Your task to perform on an android device: Clear all items from cart on walmart. Add logitech g pro to the cart on walmart, then select checkout. Image 0: 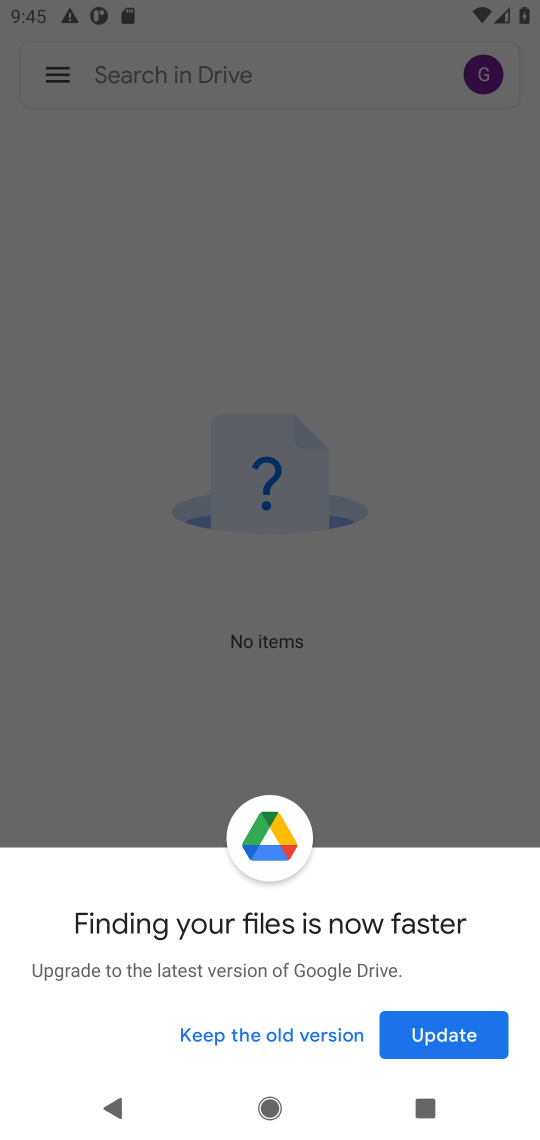
Step 0: press home button
Your task to perform on an android device: Clear all items from cart on walmart. Add logitech g pro to the cart on walmart, then select checkout. Image 1: 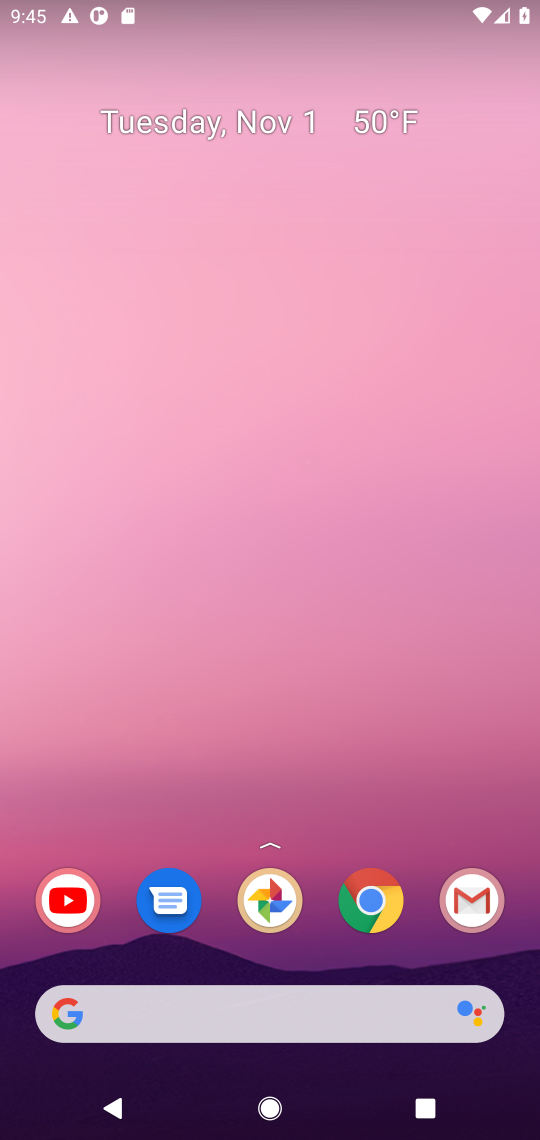
Step 1: click (364, 907)
Your task to perform on an android device: Clear all items from cart on walmart. Add logitech g pro to the cart on walmart, then select checkout. Image 2: 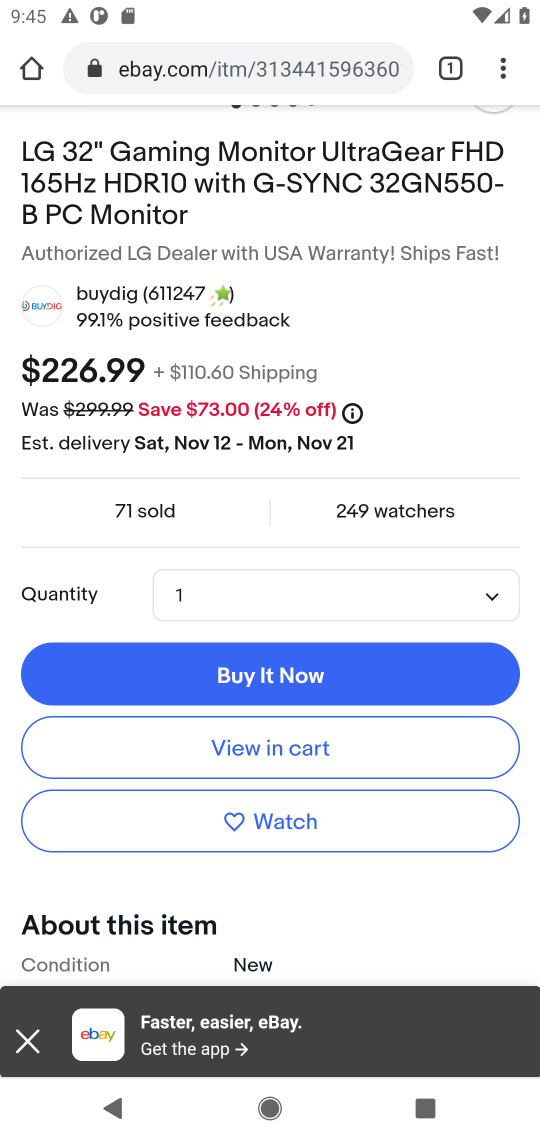
Step 2: click (196, 70)
Your task to perform on an android device: Clear all items from cart on walmart. Add logitech g pro to the cart on walmart, then select checkout. Image 3: 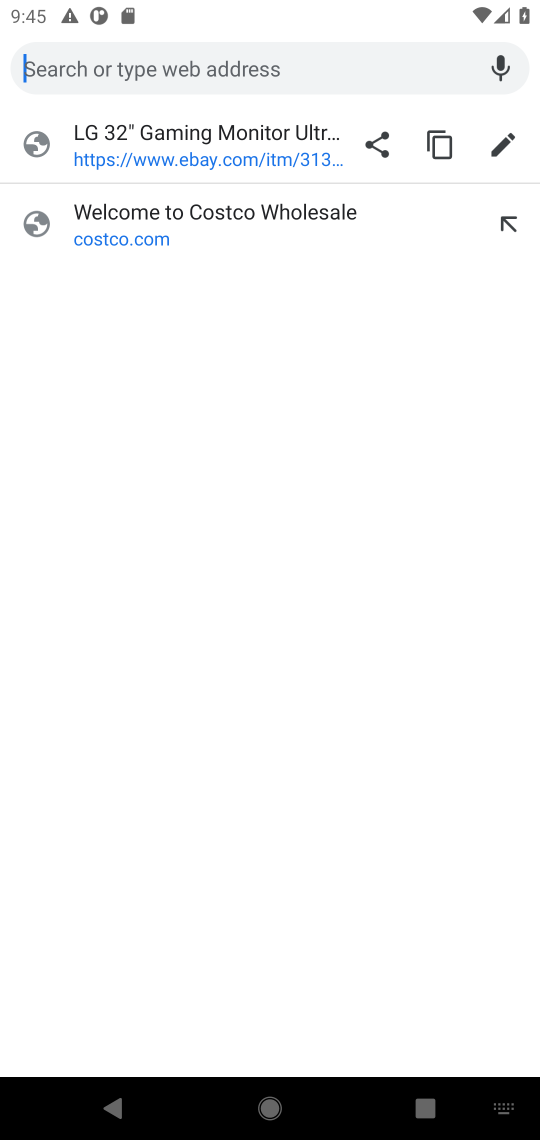
Step 3: type "walmart"
Your task to perform on an android device: Clear all items from cart on walmart. Add logitech g pro to the cart on walmart, then select checkout. Image 4: 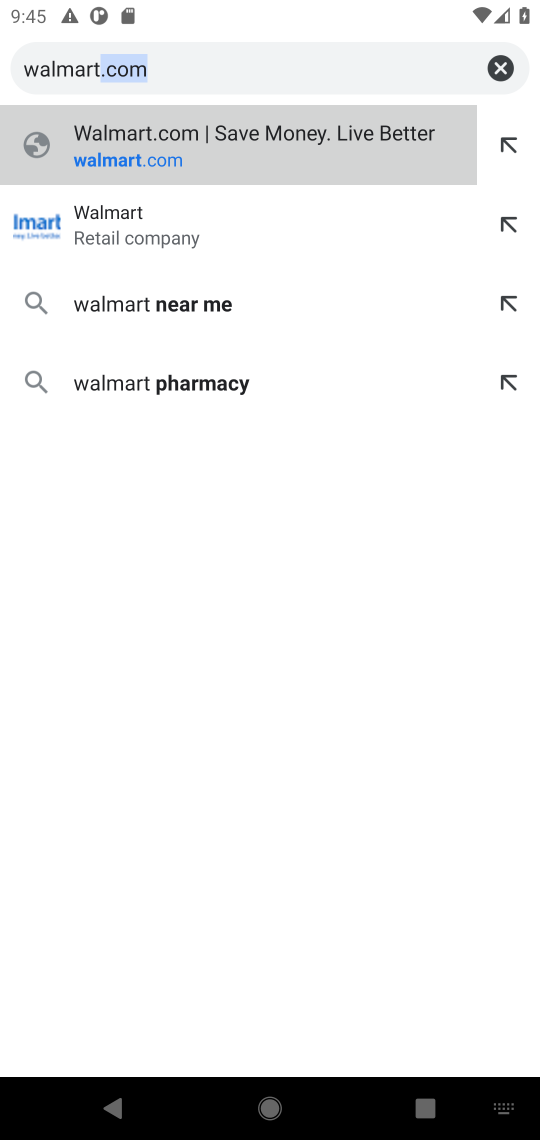
Step 4: click (190, 218)
Your task to perform on an android device: Clear all items from cart on walmart. Add logitech g pro to the cart on walmart, then select checkout. Image 5: 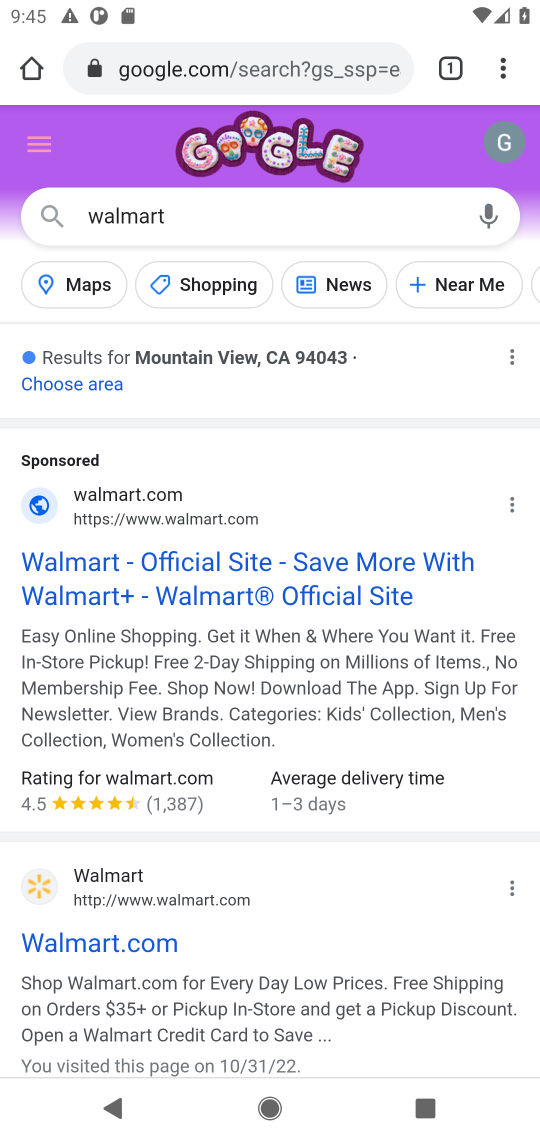
Step 5: click (105, 586)
Your task to perform on an android device: Clear all items from cart on walmart. Add logitech g pro to the cart on walmart, then select checkout. Image 6: 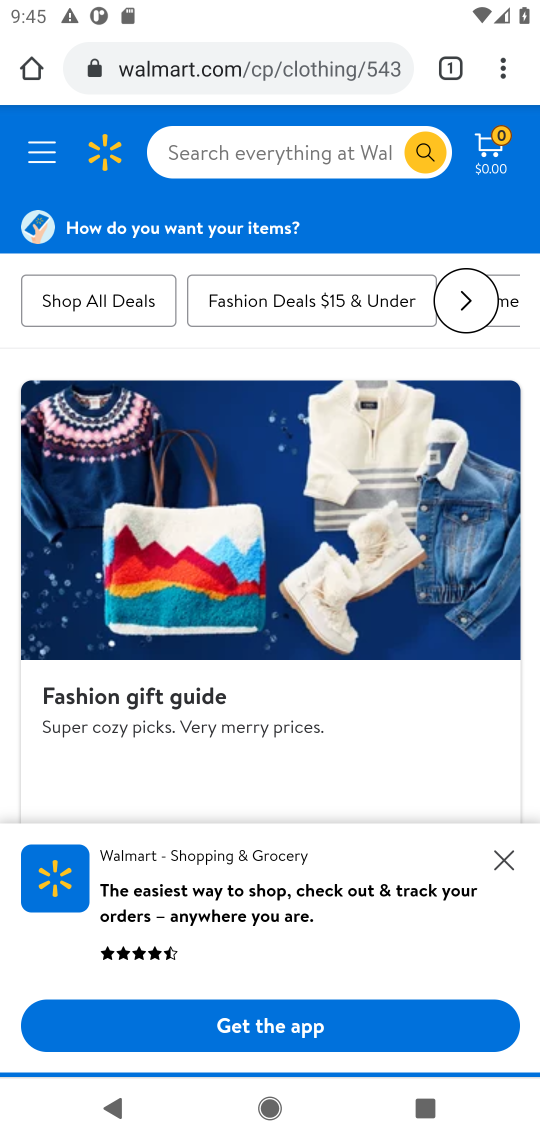
Step 6: click (105, 586)
Your task to perform on an android device: Clear all items from cart on walmart. Add logitech g pro to the cart on walmart, then select checkout. Image 7: 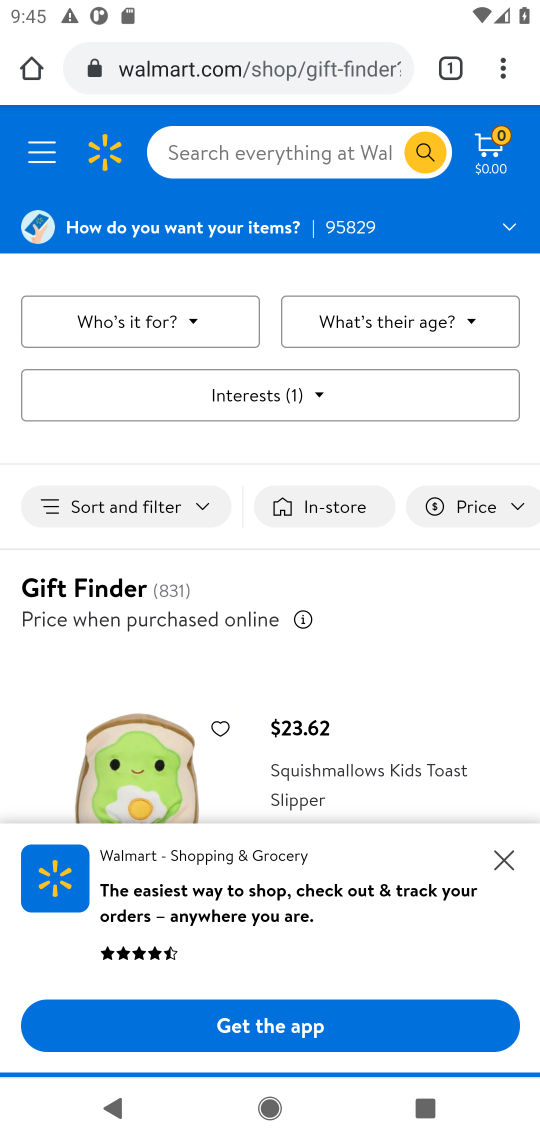
Step 7: click (485, 132)
Your task to perform on an android device: Clear all items from cart on walmart. Add logitech g pro to the cart on walmart, then select checkout. Image 8: 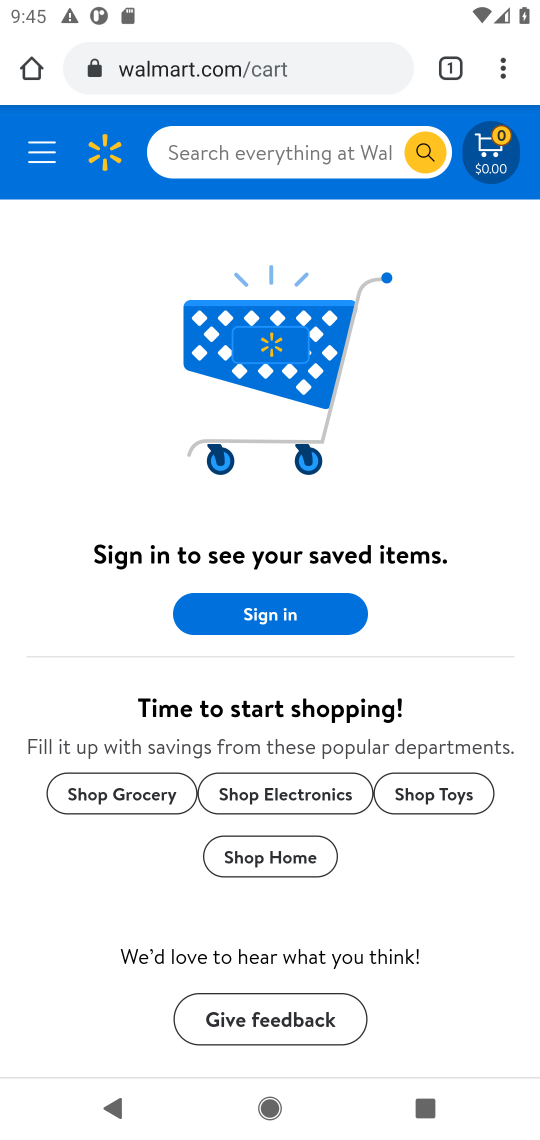
Step 8: click (299, 141)
Your task to perform on an android device: Clear all items from cart on walmart. Add logitech g pro to the cart on walmart, then select checkout. Image 9: 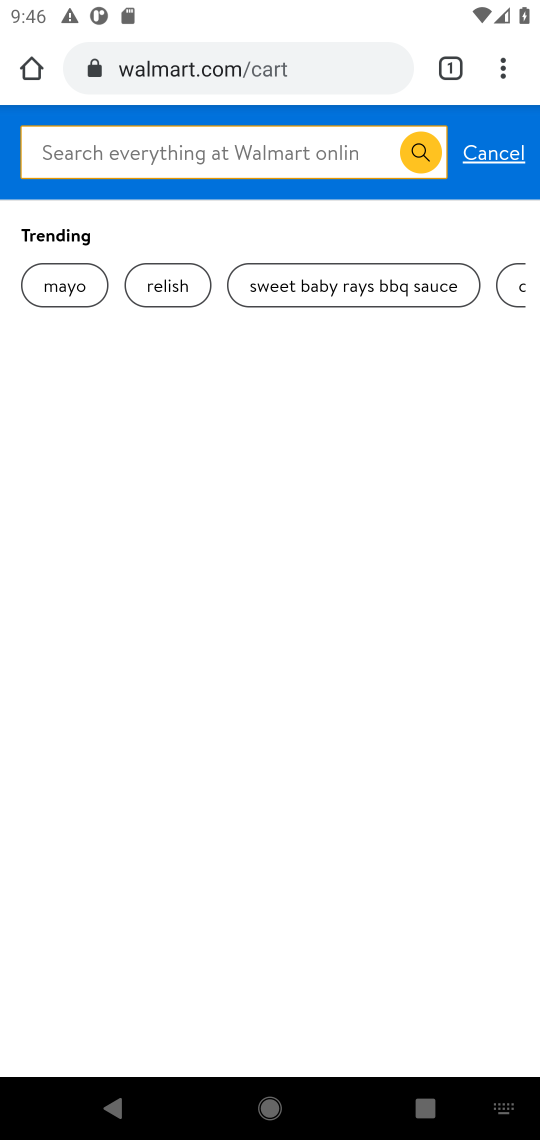
Step 9: type "logitech g pro"
Your task to perform on an android device: Clear all items from cart on walmart. Add logitech g pro to the cart on walmart, then select checkout. Image 10: 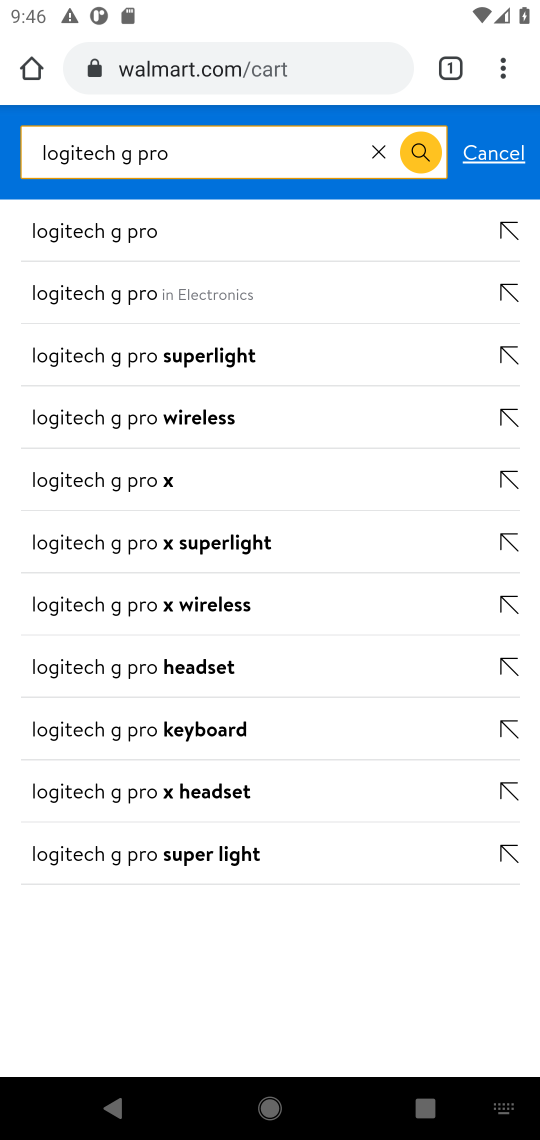
Step 10: click (288, 214)
Your task to perform on an android device: Clear all items from cart on walmart. Add logitech g pro to the cart on walmart, then select checkout. Image 11: 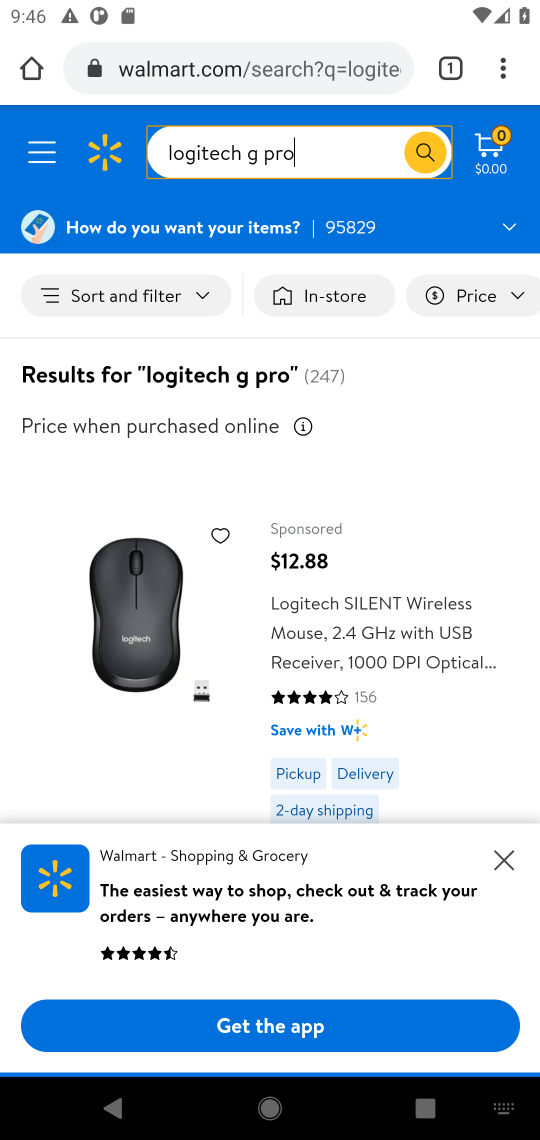
Step 11: click (502, 862)
Your task to perform on an android device: Clear all items from cart on walmart. Add logitech g pro to the cart on walmart, then select checkout. Image 12: 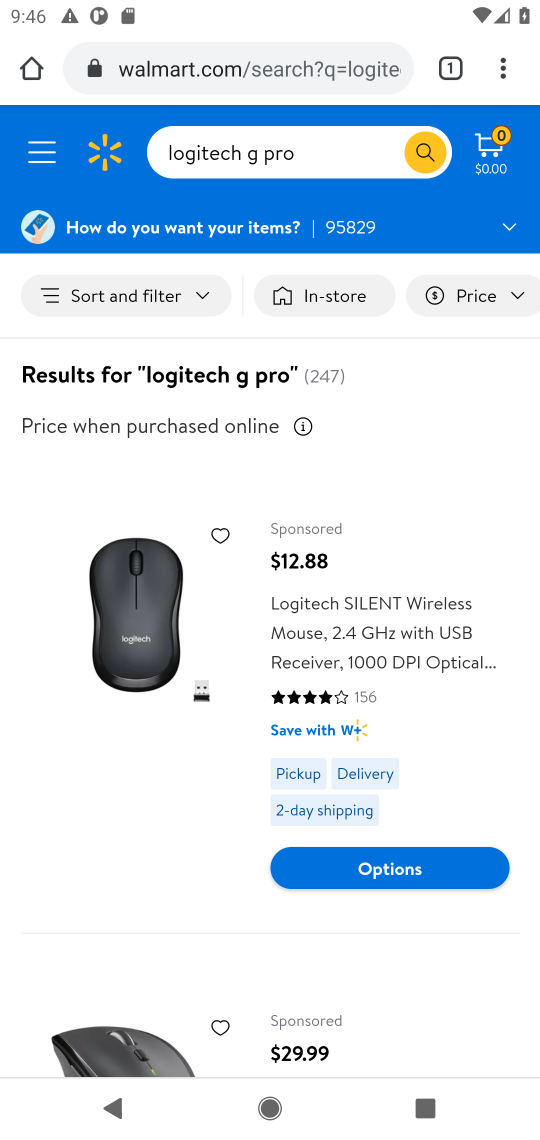
Step 12: drag from (452, 757) to (421, 230)
Your task to perform on an android device: Clear all items from cart on walmart. Add logitech g pro to the cart on walmart, then select checkout. Image 13: 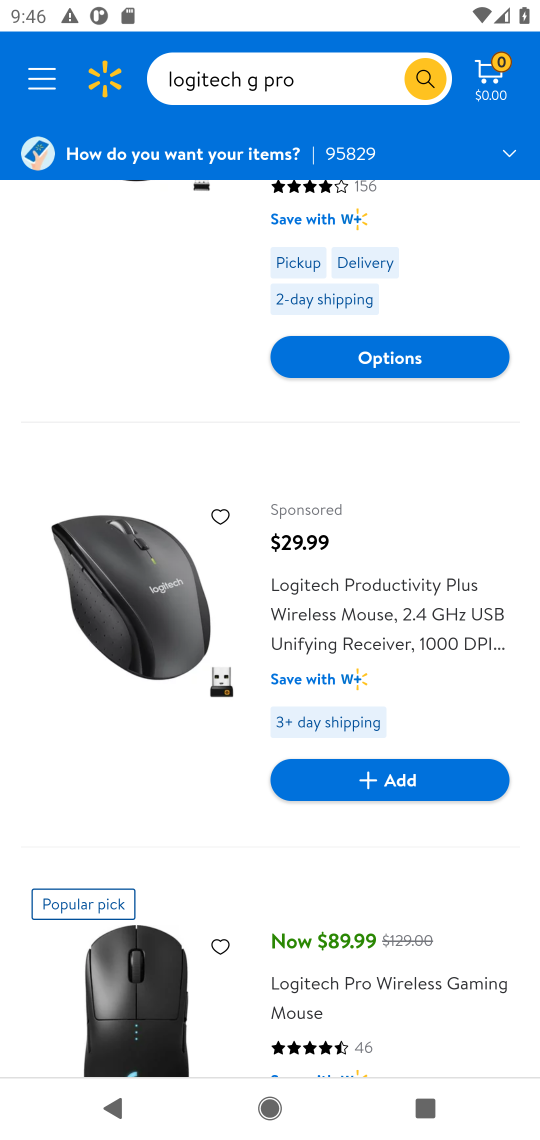
Step 13: drag from (383, 887) to (355, 410)
Your task to perform on an android device: Clear all items from cart on walmart. Add logitech g pro to the cart on walmart, then select checkout. Image 14: 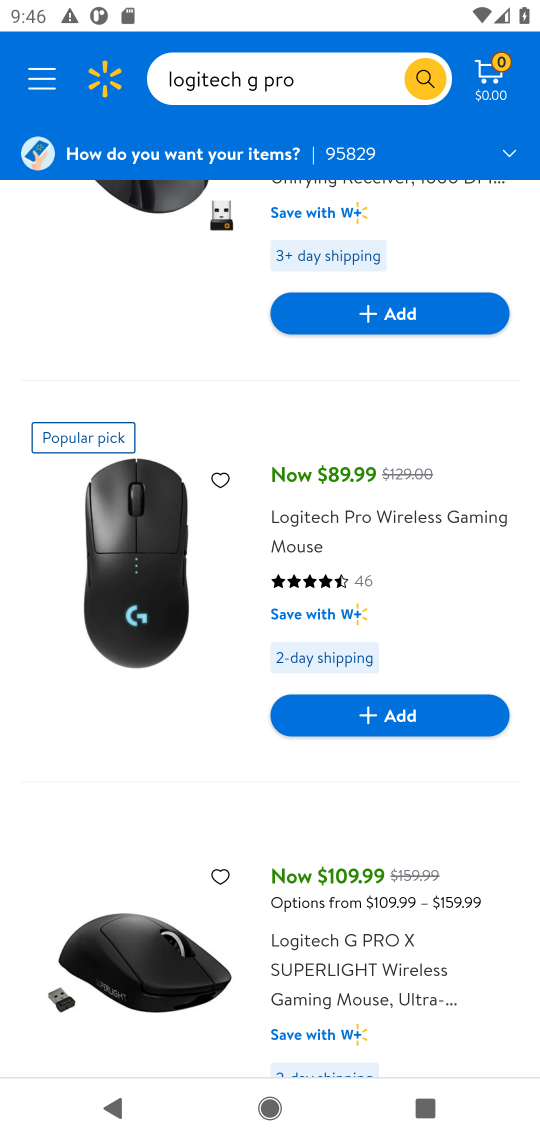
Step 14: drag from (443, 1010) to (426, 462)
Your task to perform on an android device: Clear all items from cart on walmart. Add logitech g pro to the cart on walmart, then select checkout. Image 15: 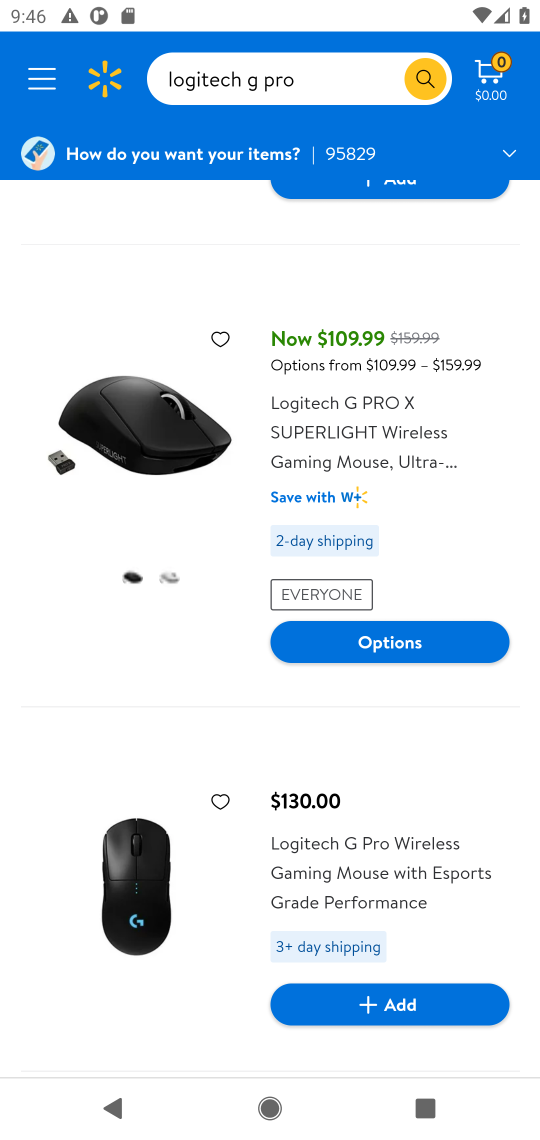
Step 15: click (397, 645)
Your task to perform on an android device: Clear all items from cart on walmart. Add logitech g pro to the cart on walmart, then select checkout. Image 16: 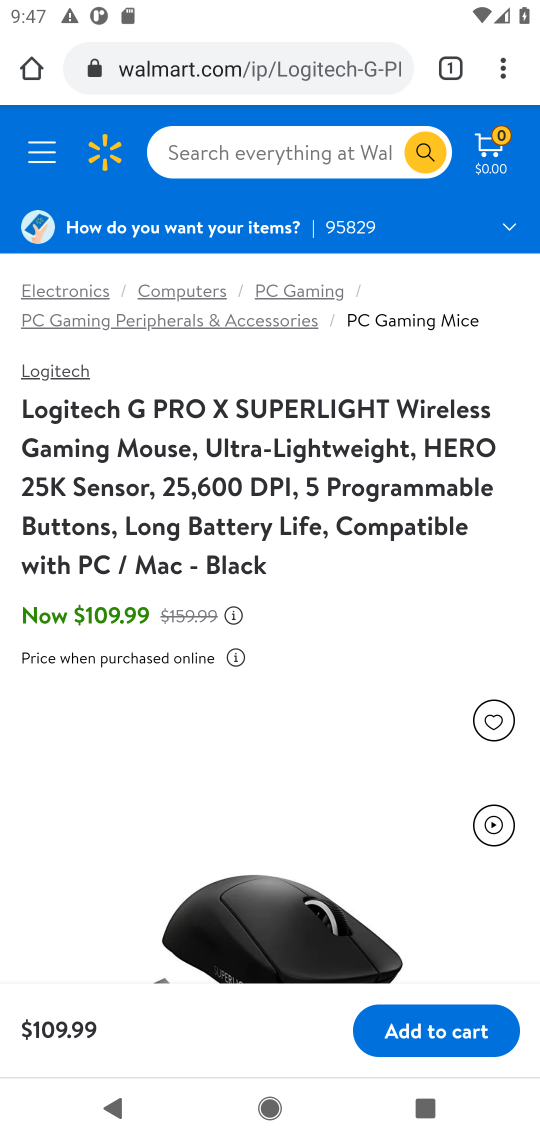
Step 16: click (410, 1026)
Your task to perform on an android device: Clear all items from cart on walmart. Add logitech g pro to the cart on walmart, then select checkout. Image 17: 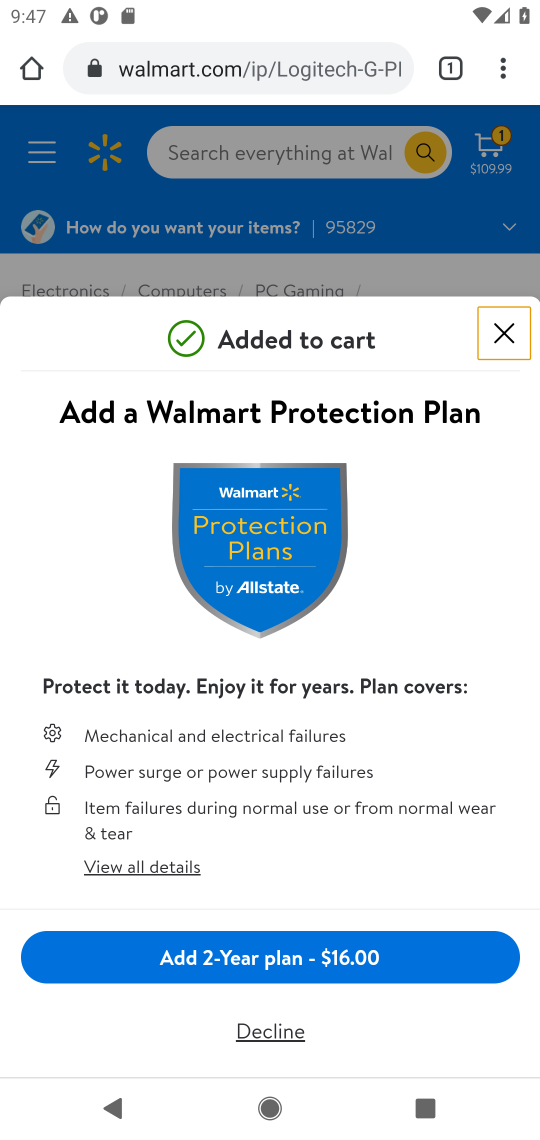
Step 17: click (489, 332)
Your task to perform on an android device: Clear all items from cart on walmart. Add logitech g pro to the cart on walmart, then select checkout. Image 18: 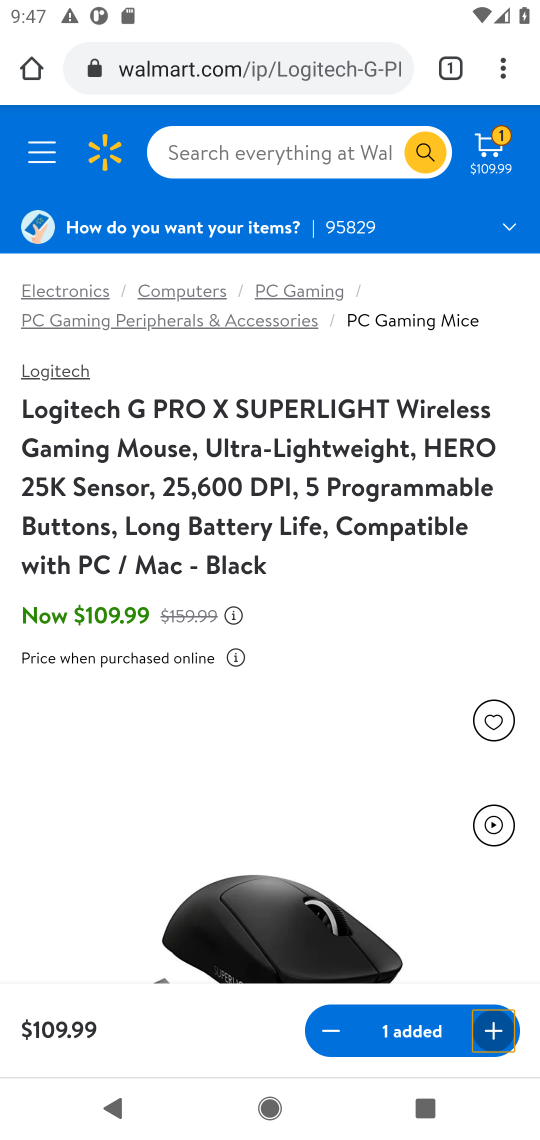
Step 18: click (477, 162)
Your task to perform on an android device: Clear all items from cart on walmart. Add logitech g pro to the cart on walmart, then select checkout. Image 19: 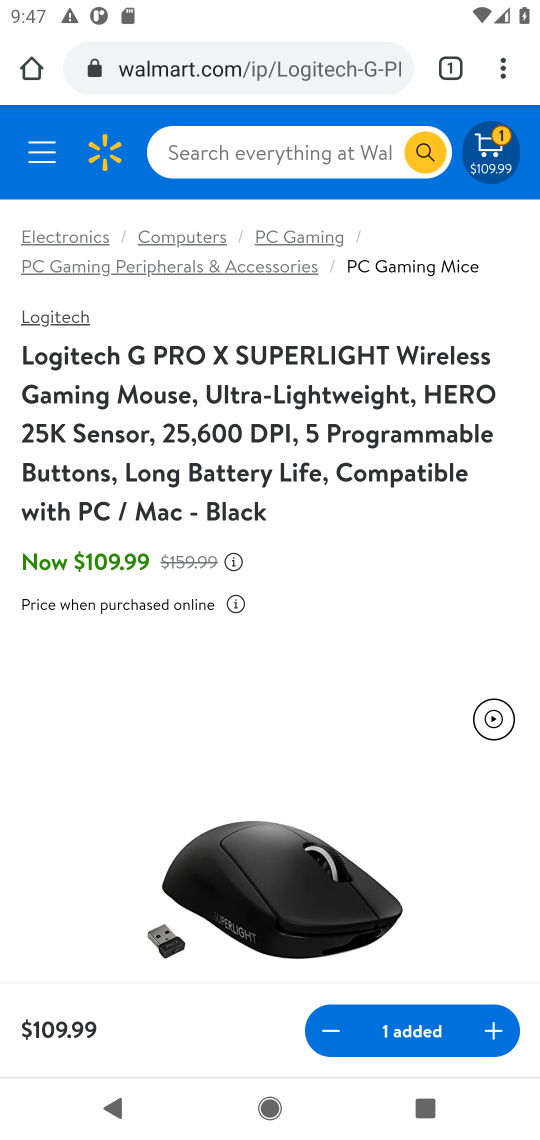
Step 19: click (477, 162)
Your task to perform on an android device: Clear all items from cart on walmart. Add logitech g pro to the cart on walmart, then select checkout. Image 20: 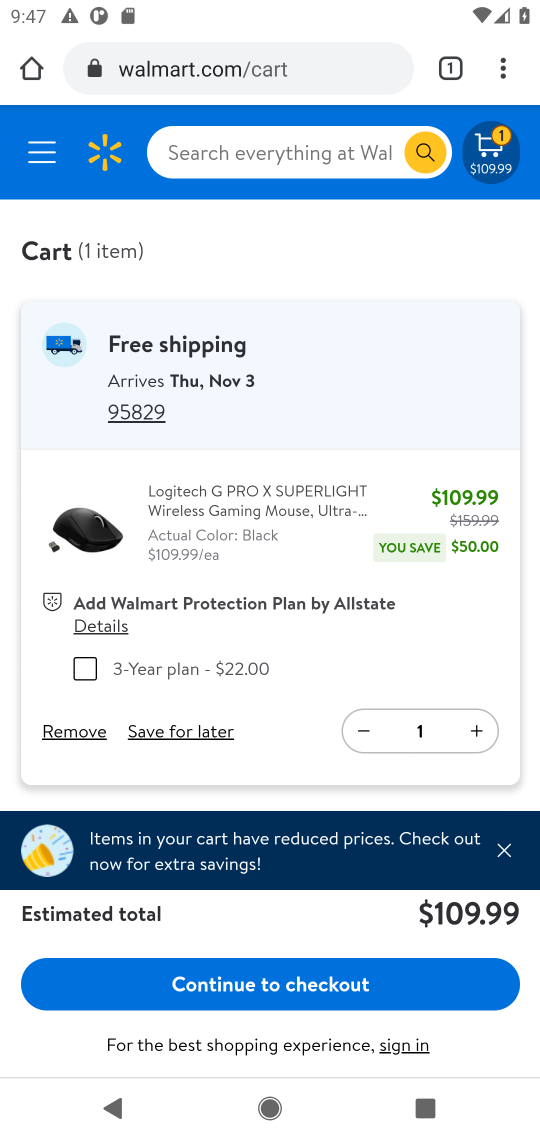
Step 20: click (301, 970)
Your task to perform on an android device: Clear all items from cart on walmart. Add logitech g pro to the cart on walmart, then select checkout. Image 21: 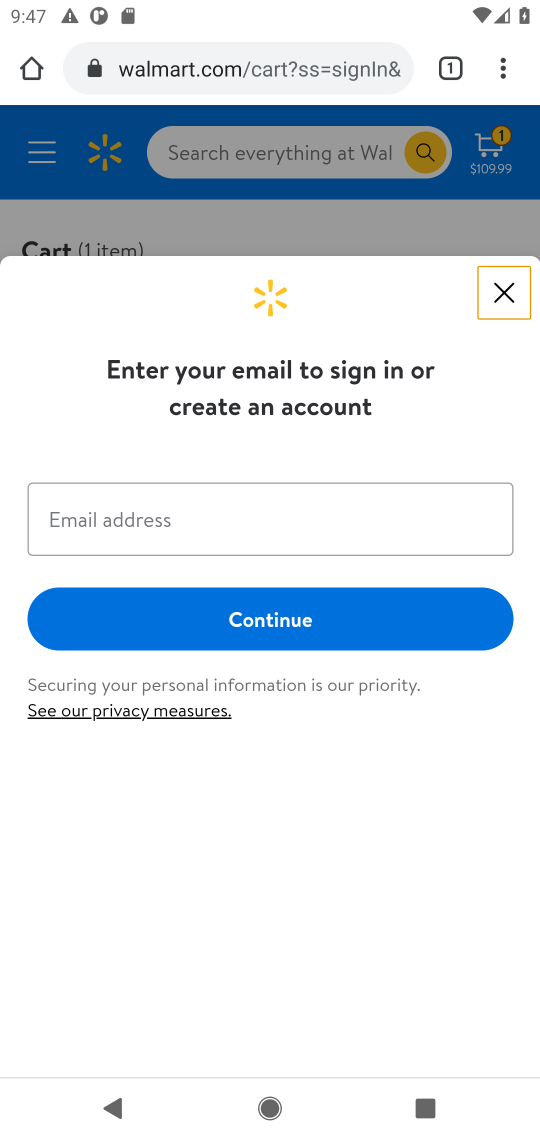
Step 21: task complete